Your task to perform on an android device: change timer sound Image 0: 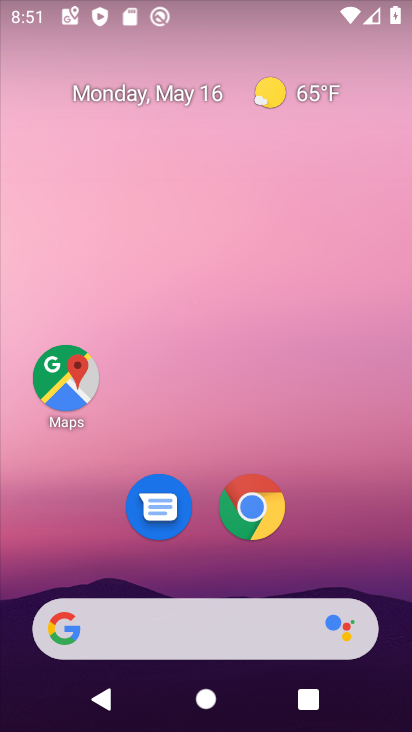
Step 0: drag from (205, 573) to (141, 0)
Your task to perform on an android device: change timer sound Image 1: 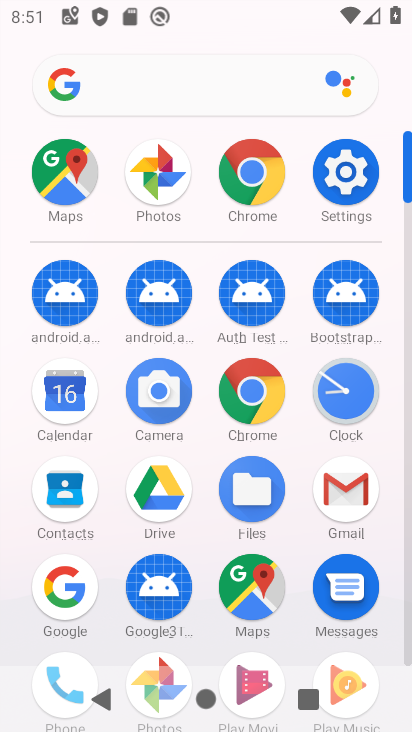
Step 1: click (346, 397)
Your task to perform on an android device: change timer sound Image 2: 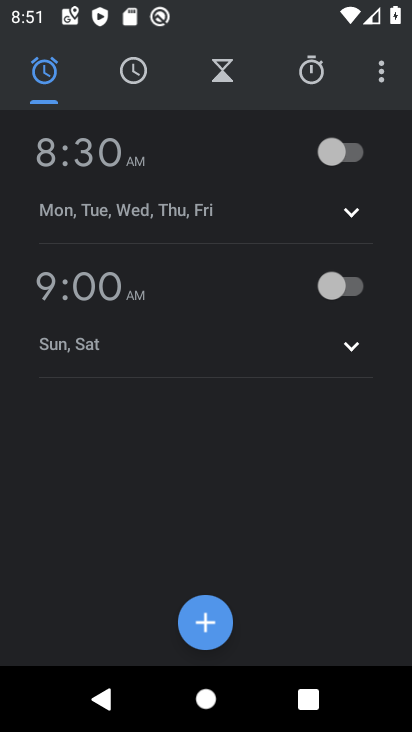
Step 2: click (379, 85)
Your task to perform on an android device: change timer sound Image 3: 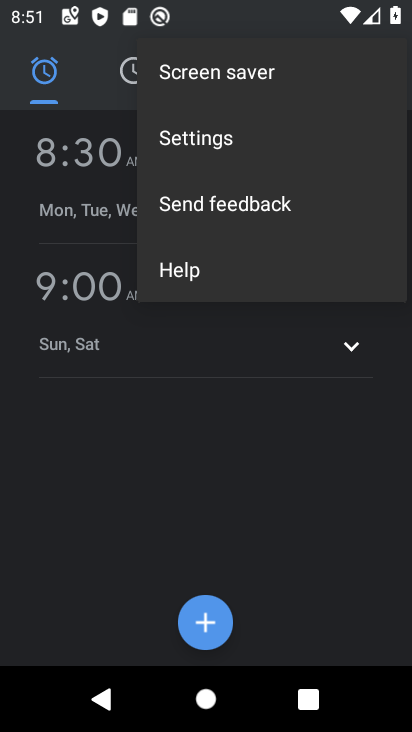
Step 3: click (151, 145)
Your task to perform on an android device: change timer sound Image 4: 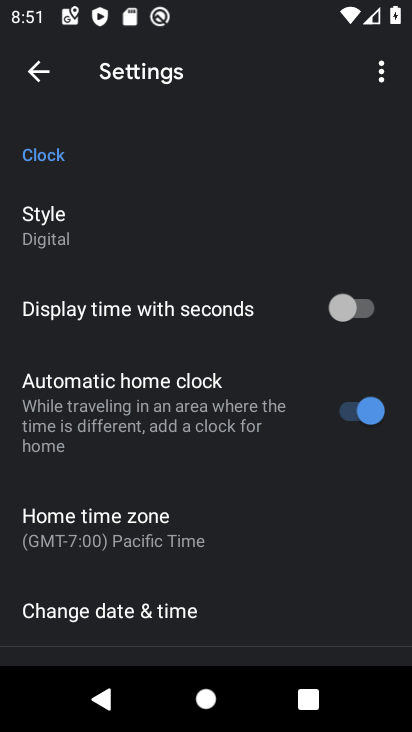
Step 4: drag from (168, 453) to (120, 106)
Your task to perform on an android device: change timer sound Image 5: 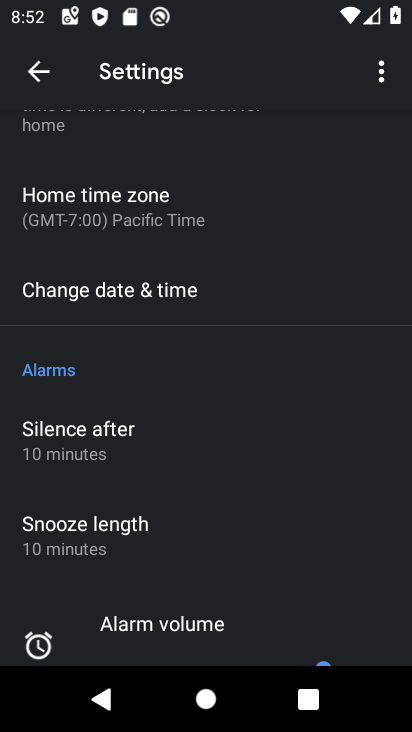
Step 5: drag from (87, 290) to (82, 248)
Your task to perform on an android device: change timer sound Image 6: 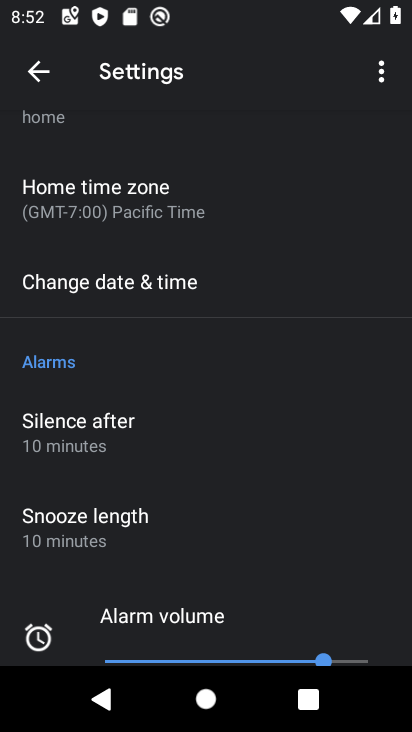
Step 6: drag from (140, 505) to (85, 39)
Your task to perform on an android device: change timer sound Image 7: 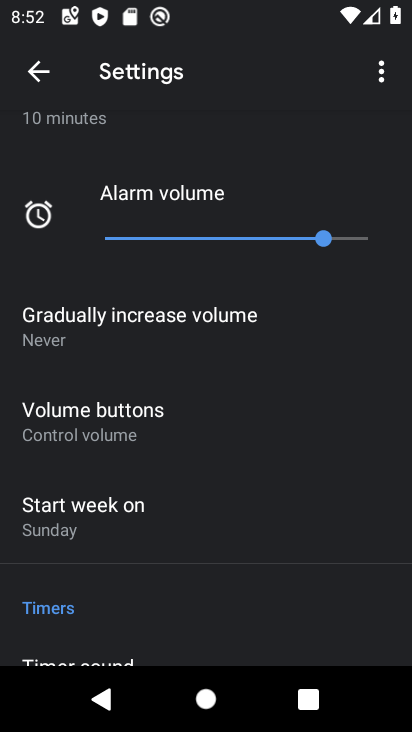
Step 7: drag from (179, 533) to (156, 366)
Your task to perform on an android device: change timer sound Image 8: 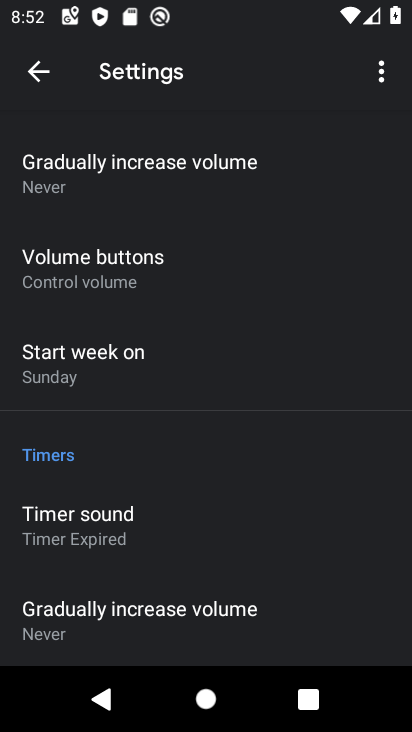
Step 8: click (102, 540)
Your task to perform on an android device: change timer sound Image 9: 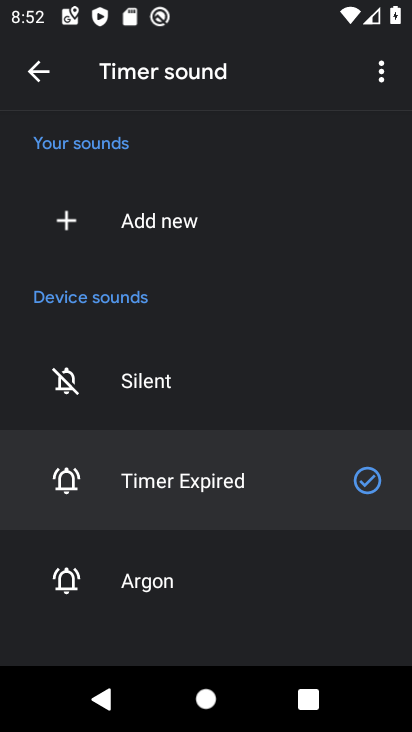
Step 9: click (154, 583)
Your task to perform on an android device: change timer sound Image 10: 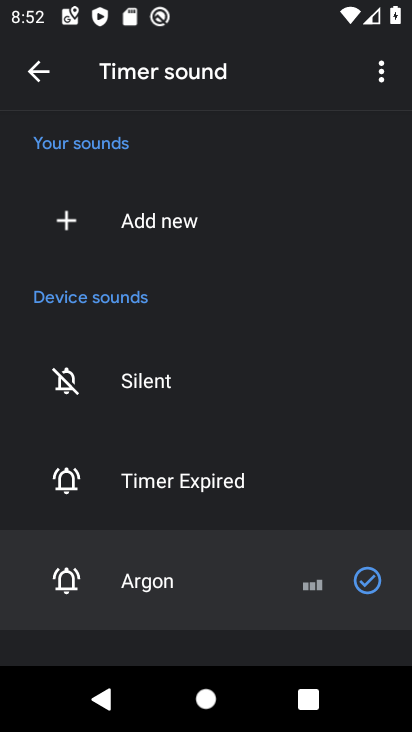
Step 10: task complete